Your task to perform on an android device: What's on the menu at McDonalds? Image 0: 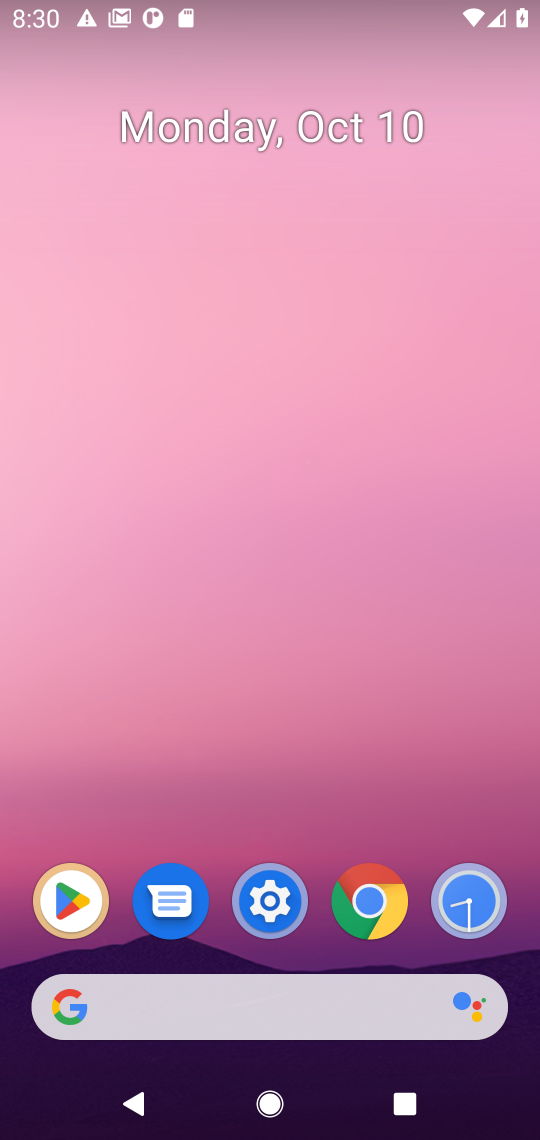
Step 0: press home button
Your task to perform on an android device: What's on the menu at McDonalds? Image 1: 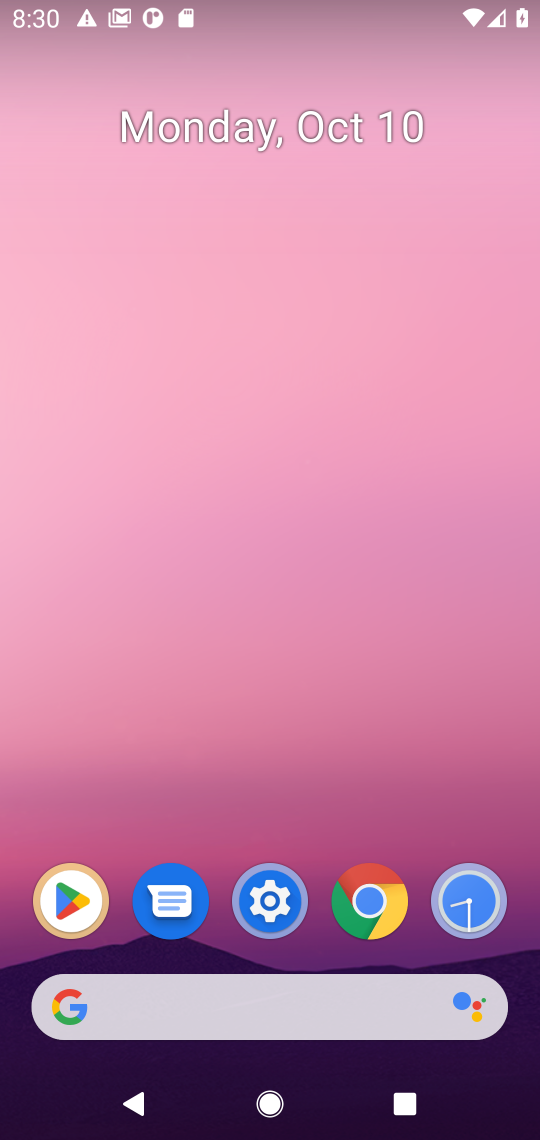
Step 1: click (312, 995)
Your task to perform on an android device: What's on the menu at McDonalds? Image 2: 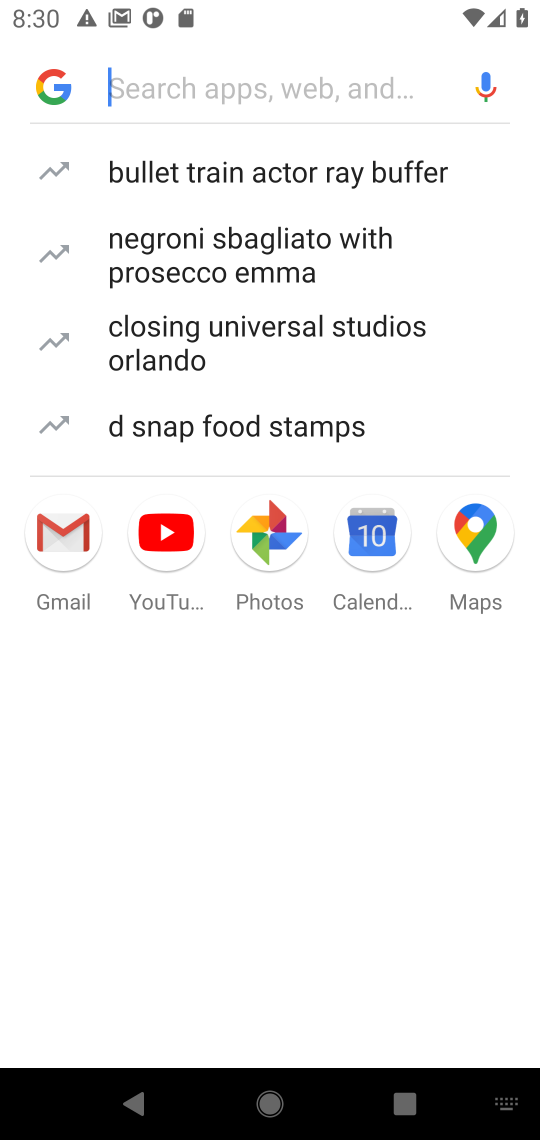
Step 2: type "What's on the menu at McDonalds"
Your task to perform on an android device: What's on the menu at McDonalds? Image 3: 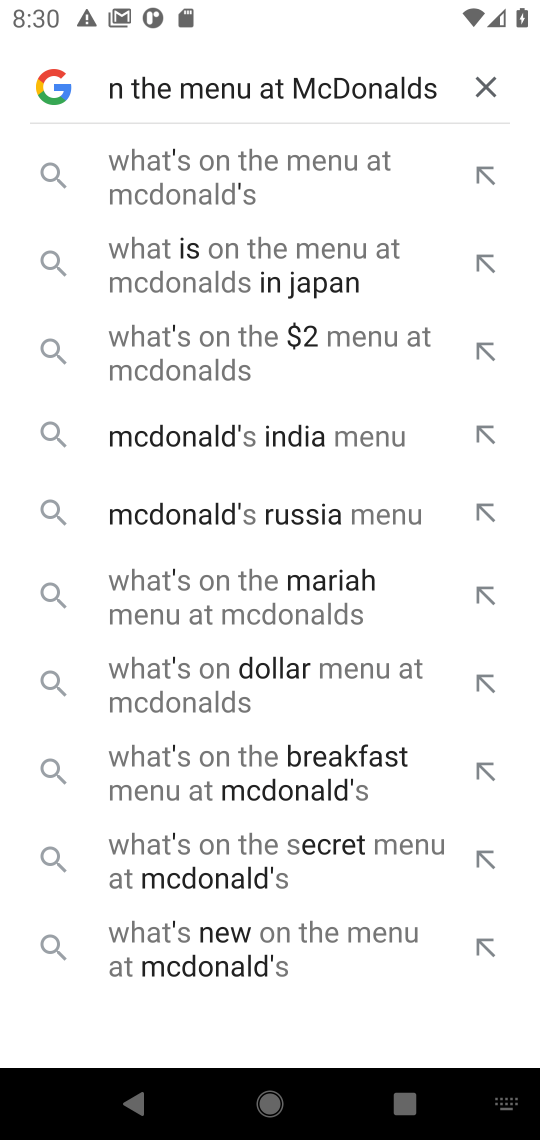
Step 3: press enter
Your task to perform on an android device: What's on the menu at McDonalds? Image 4: 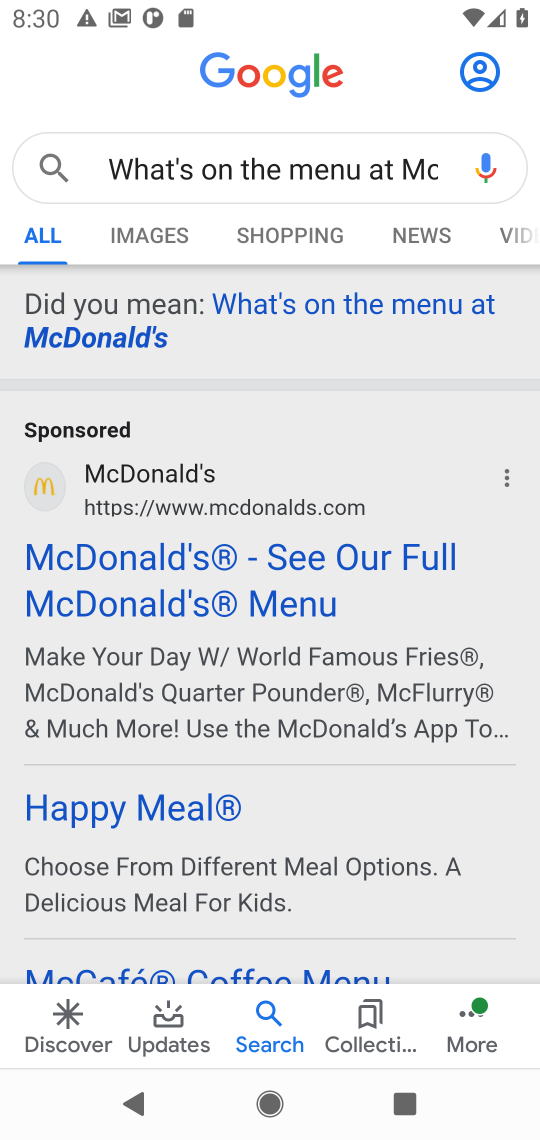
Step 4: click (208, 590)
Your task to perform on an android device: What's on the menu at McDonalds? Image 5: 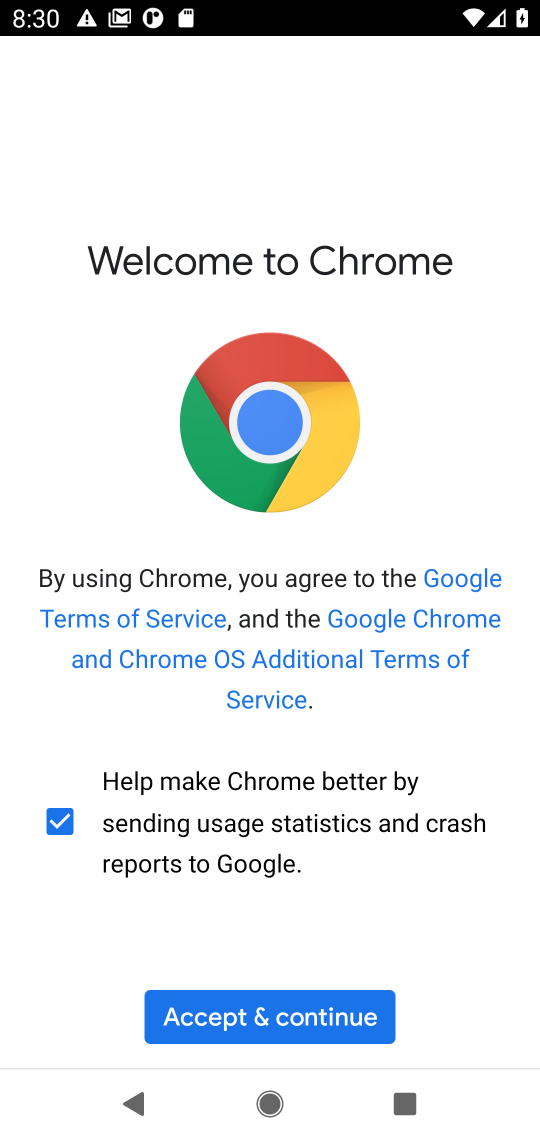
Step 5: click (258, 1022)
Your task to perform on an android device: What's on the menu at McDonalds? Image 6: 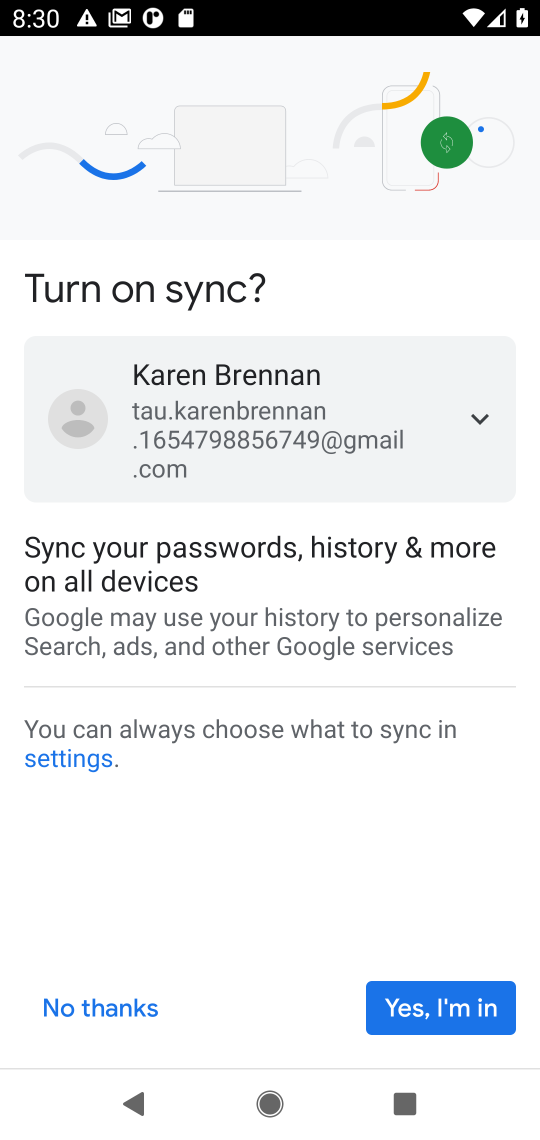
Step 6: click (457, 999)
Your task to perform on an android device: What's on the menu at McDonalds? Image 7: 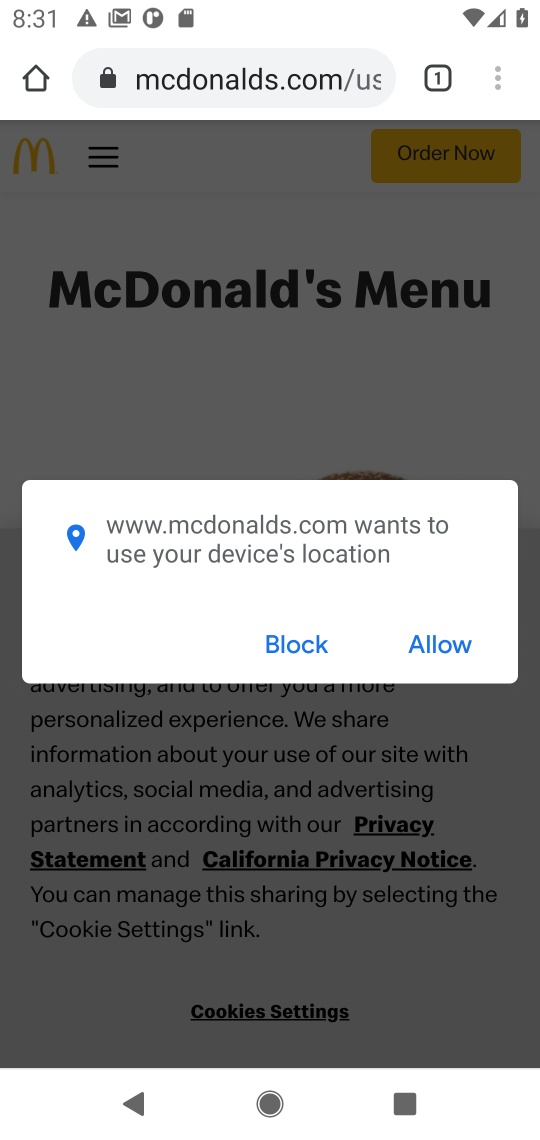
Step 7: click (294, 659)
Your task to perform on an android device: What's on the menu at McDonalds? Image 8: 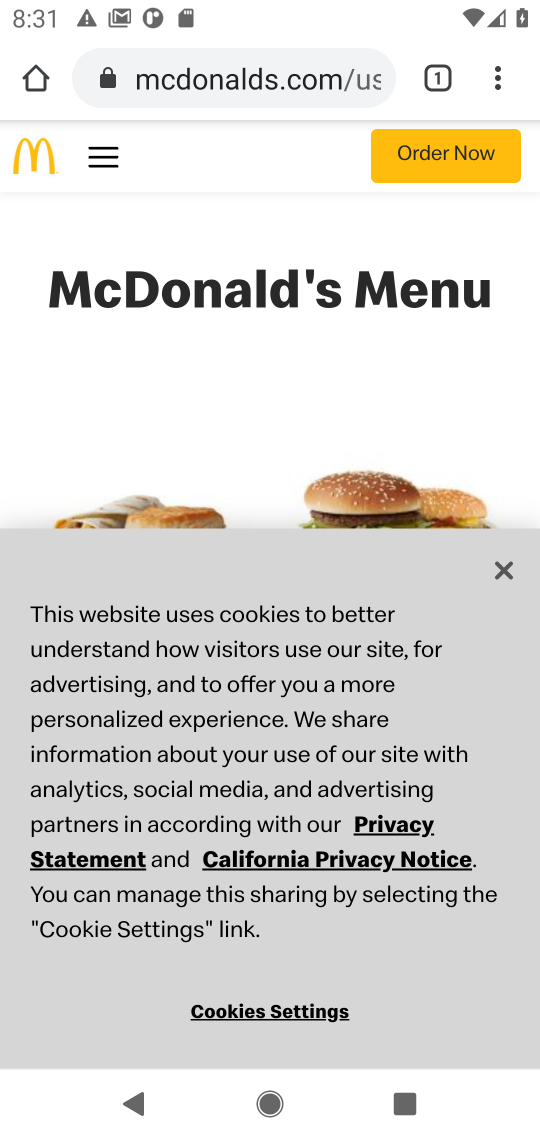
Step 8: click (514, 565)
Your task to perform on an android device: What's on the menu at McDonalds? Image 9: 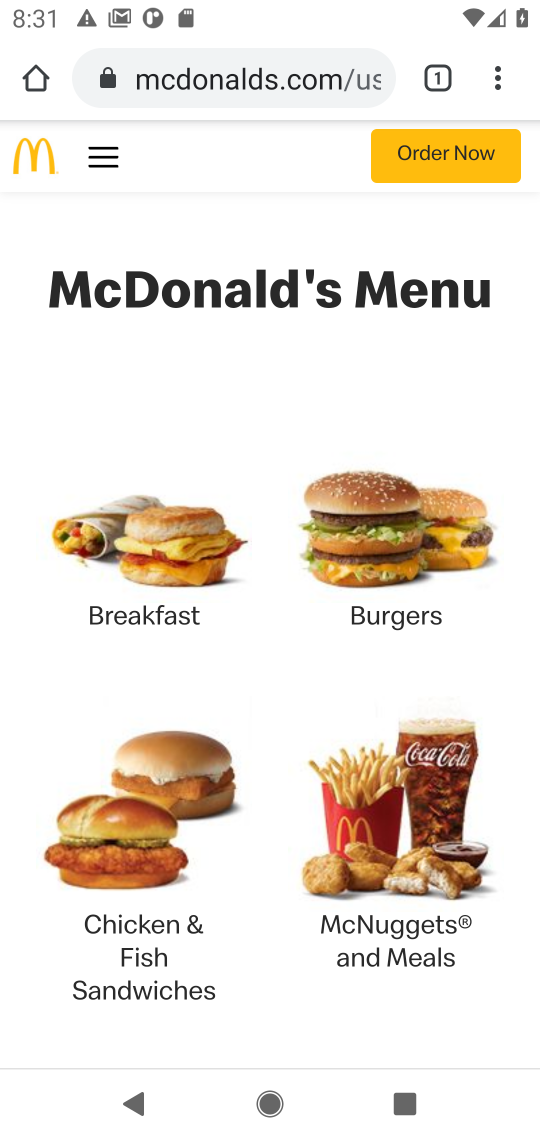
Step 9: task complete